Your task to perform on an android device: When is my next meeting? Image 0: 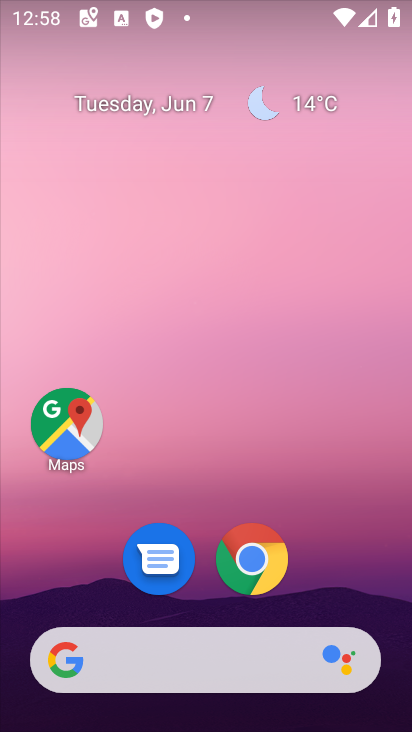
Step 0: drag from (378, 613) to (298, 102)
Your task to perform on an android device: When is my next meeting? Image 1: 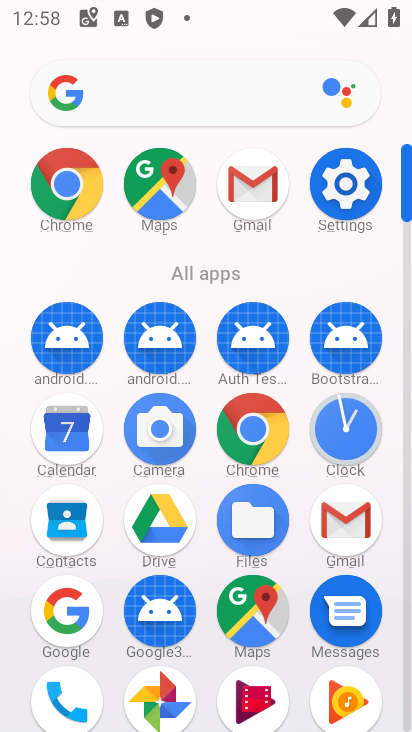
Step 1: click (65, 430)
Your task to perform on an android device: When is my next meeting? Image 2: 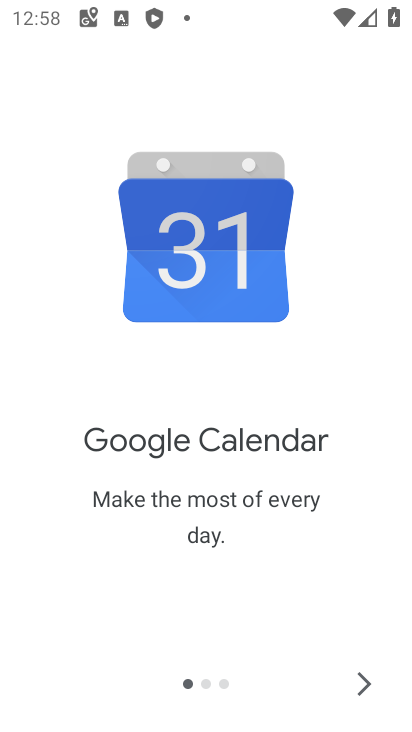
Step 2: click (363, 682)
Your task to perform on an android device: When is my next meeting? Image 3: 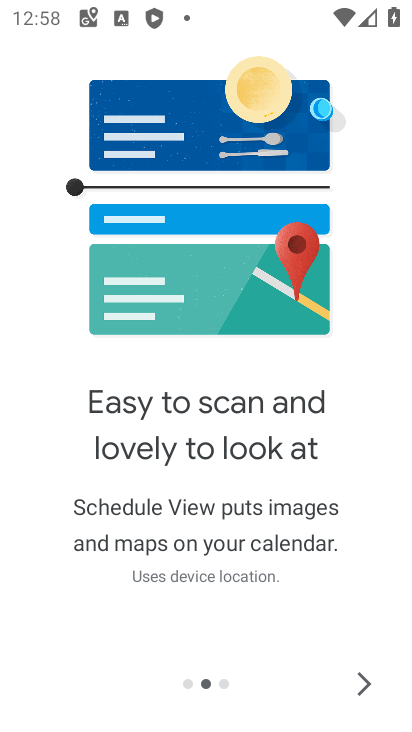
Step 3: click (363, 682)
Your task to perform on an android device: When is my next meeting? Image 4: 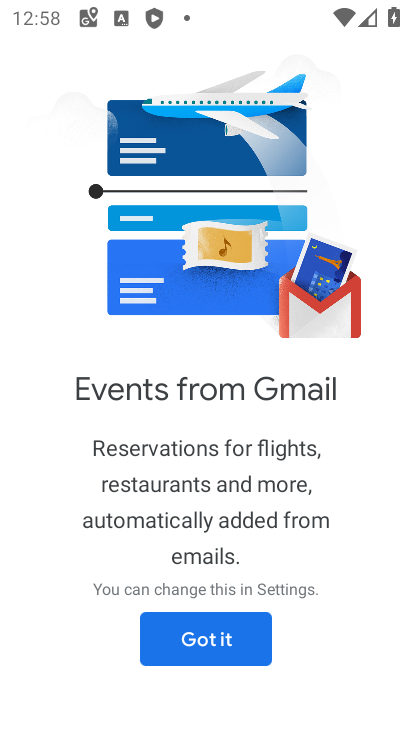
Step 4: click (195, 638)
Your task to perform on an android device: When is my next meeting? Image 5: 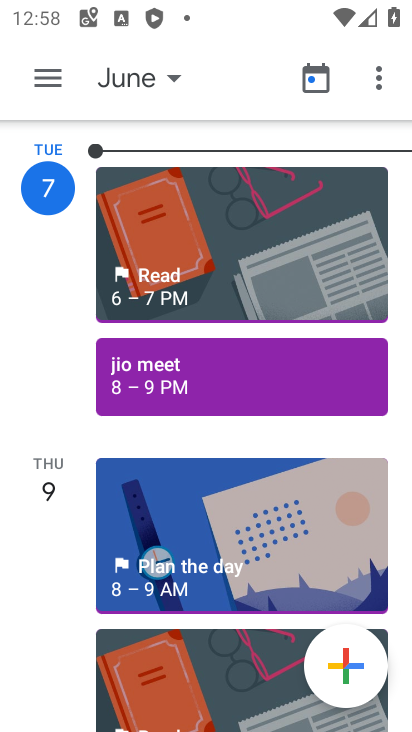
Step 5: click (37, 79)
Your task to perform on an android device: When is my next meeting? Image 6: 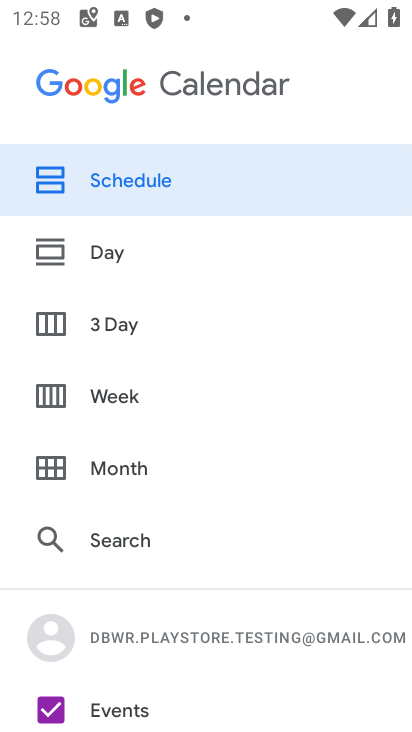
Step 6: click (135, 178)
Your task to perform on an android device: When is my next meeting? Image 7: 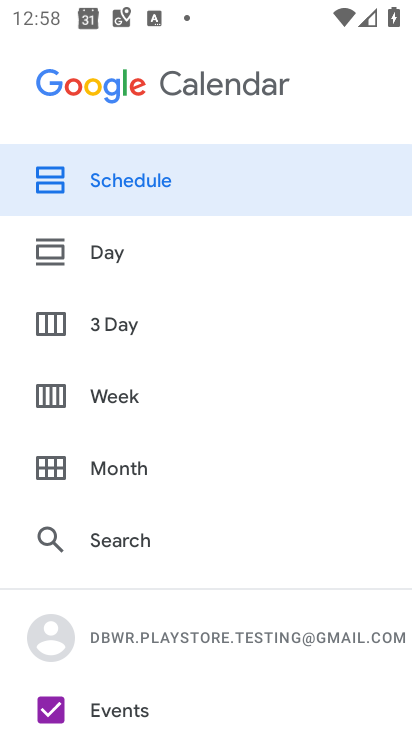
Step 7: click (168, 194)
Your task to perform on an android device: When is my next meeting? Image 8: 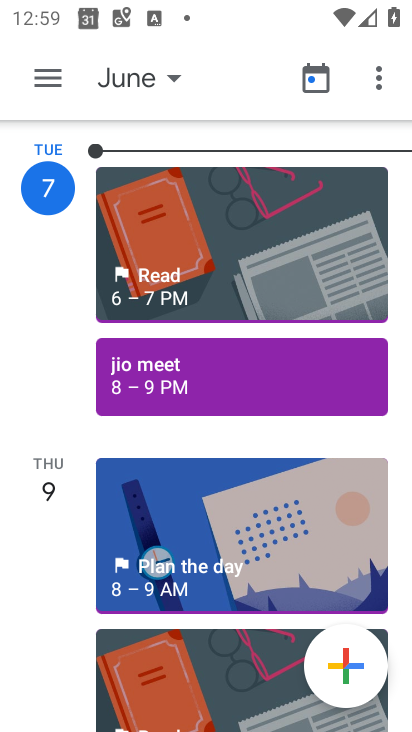
Step 8: task complete